Your task to perform on an android device: find snoozed emails in the gmail app Image 0: 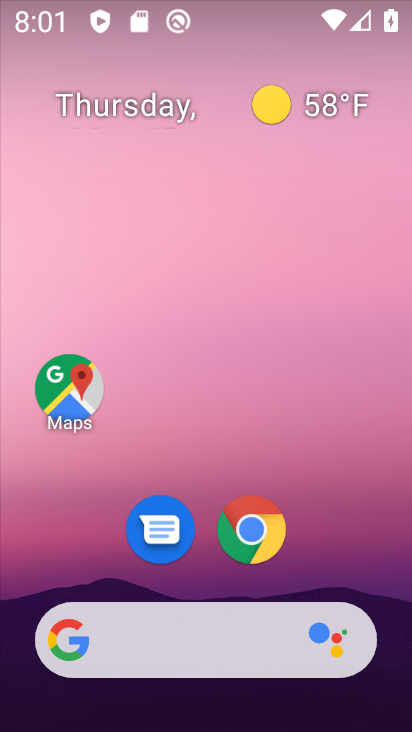
Step 0: drag from (213, 572) to (286, 84)
Your task to perform on an android device: find snoozed emails in the gmail app Image 1: 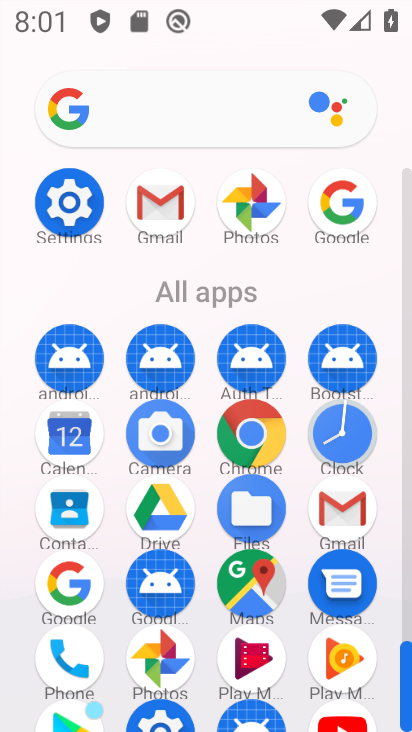
Step 1: click (168, 198)
Your task to perform on an android device: find snoozed emails in the gmail app Image 2: 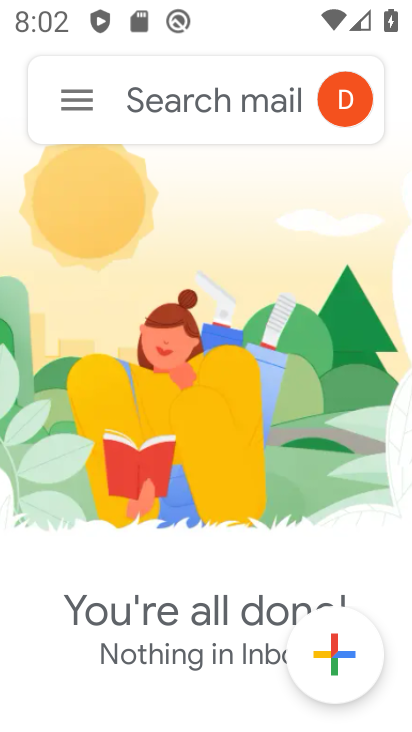
Step 2: click (79, 97)
Your task to perform on an android device: find snoozed emails in the gmail app Image 3: 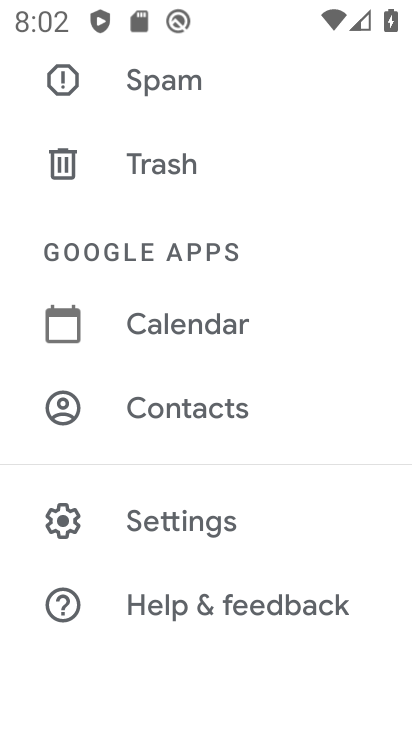
Step 3: drag from (214, 193) to (249, 631)
Your task to perform on an android device: find snoozed emails in the gmail app Image 4: 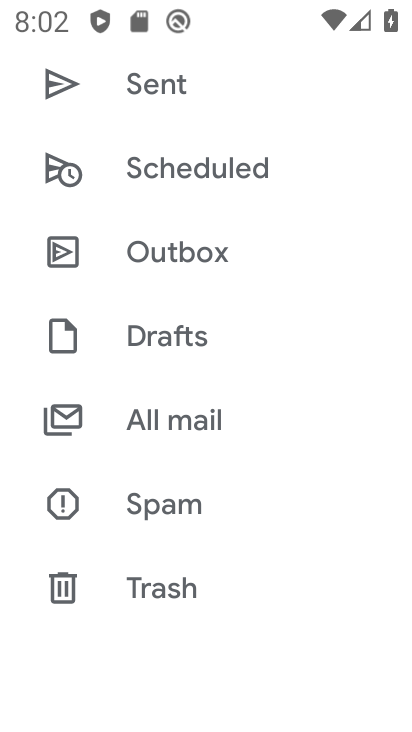
Step 4: drag from (140, 122) to (213, 632)
Your task to perform on an android device: find snoozed emails in the gmail app Image 5: 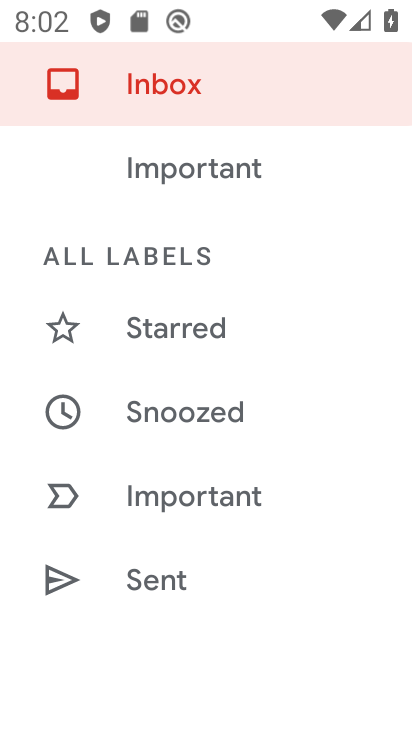
Step 5: click (210, 421)
Your task to perform on an android device: find snoozed emails in the gmail app Image 6: 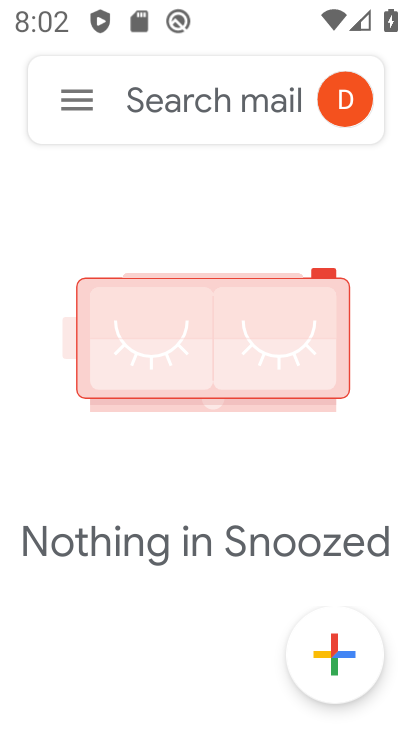
Step 6: task complete